Your task to perform on an android device: Search for seafood restaurants on Google Maps Image 0: 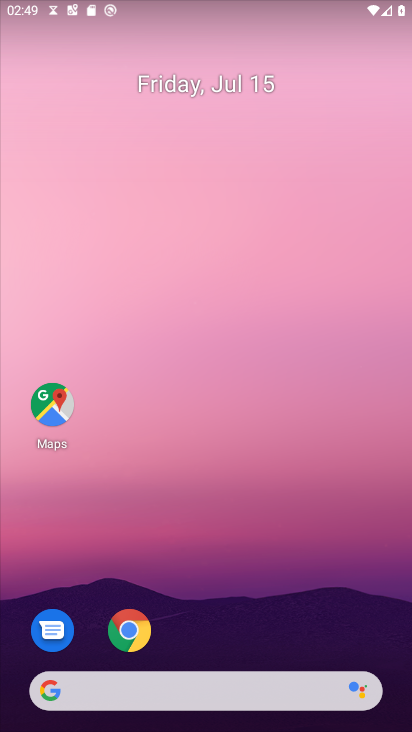
Step 0: drag from (233, 501) to (244, 91)
Your task to perform on an android device: Search for seafood restaurants on Google Maps Image 1: 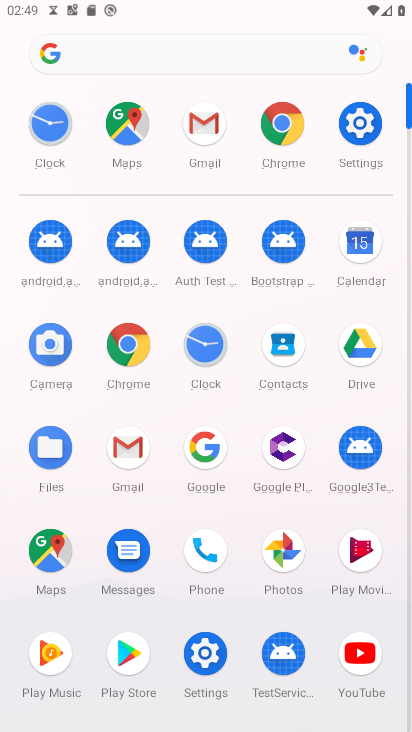
Step 1: click (33, 539)
Your task to perform on an android device: Search for seafood restaurants on Google Maps Image 2: 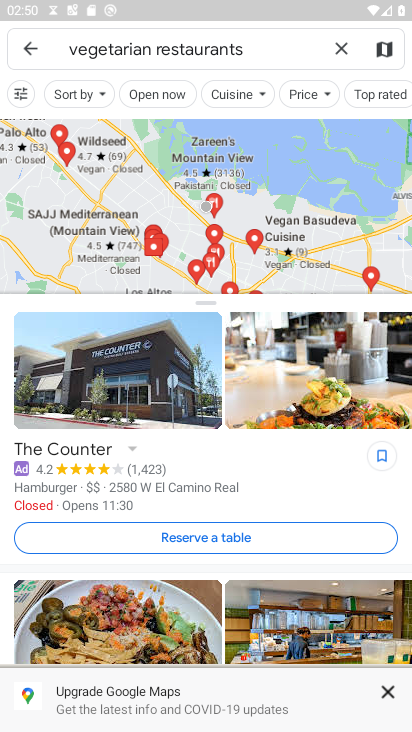
Step 2: click (337, 51)
Your task to perform on an android device: Search for seafood restaurants on Google Maps Image 3: 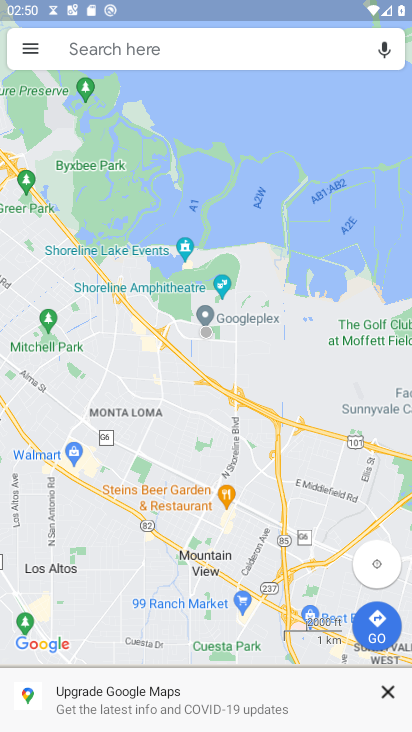
Step 3: click (211, 46)
Your task to perform on an android device: Search for seafood restaurants on Google Maps Image 4: 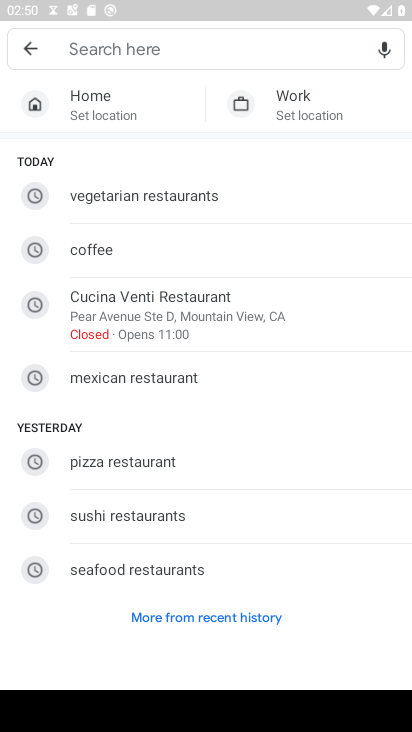
Step 4: click (68, 568)
Your task to perform on an android device: Search for seafood restaurants on Google Maps Image 5: 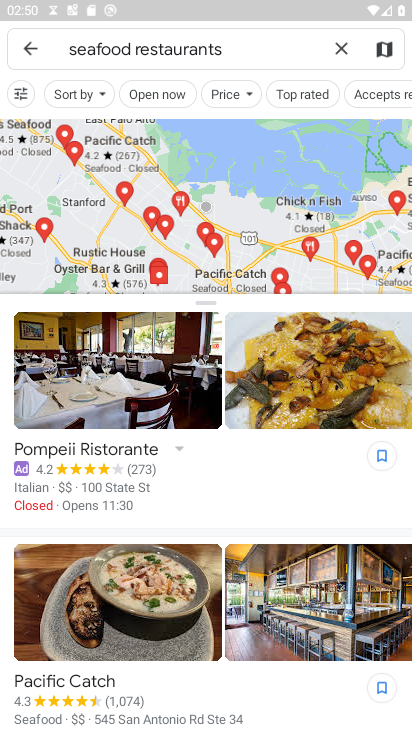
Step 5: task complete